Your task to perform on an android device: Open internet settings Image 0: 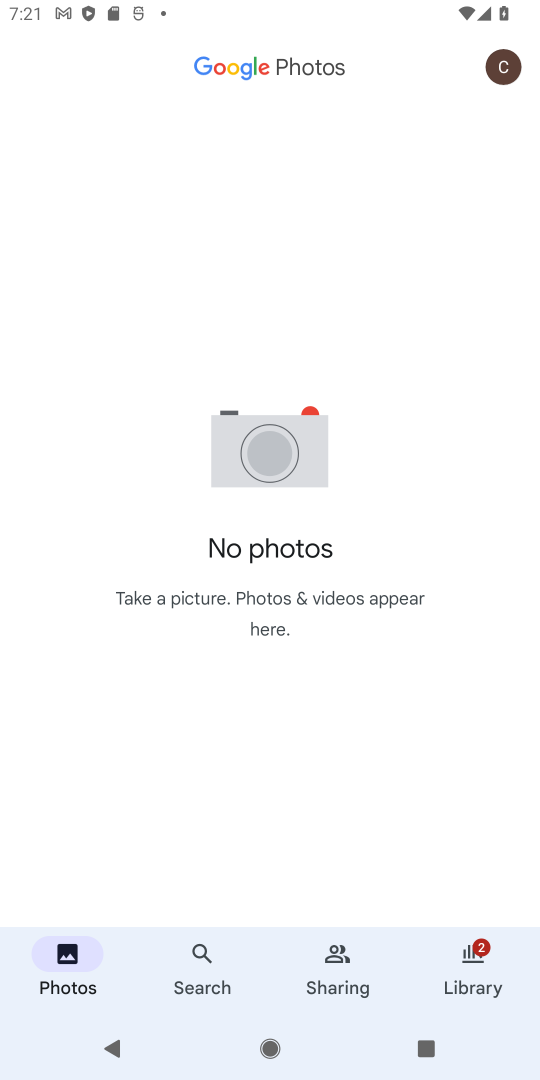
Step 0: press home button
Your task to perform on an android device: Open internet settings Image 1: 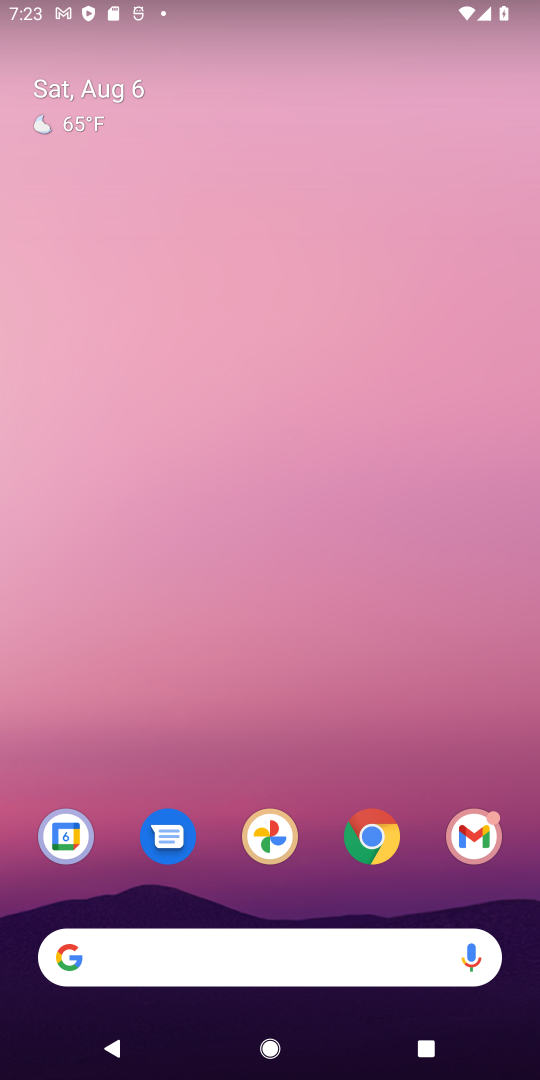
Step 1: drag from (427, 841) to (268, 85)
Your task to perform on an android device: Open internet settings Image 2: 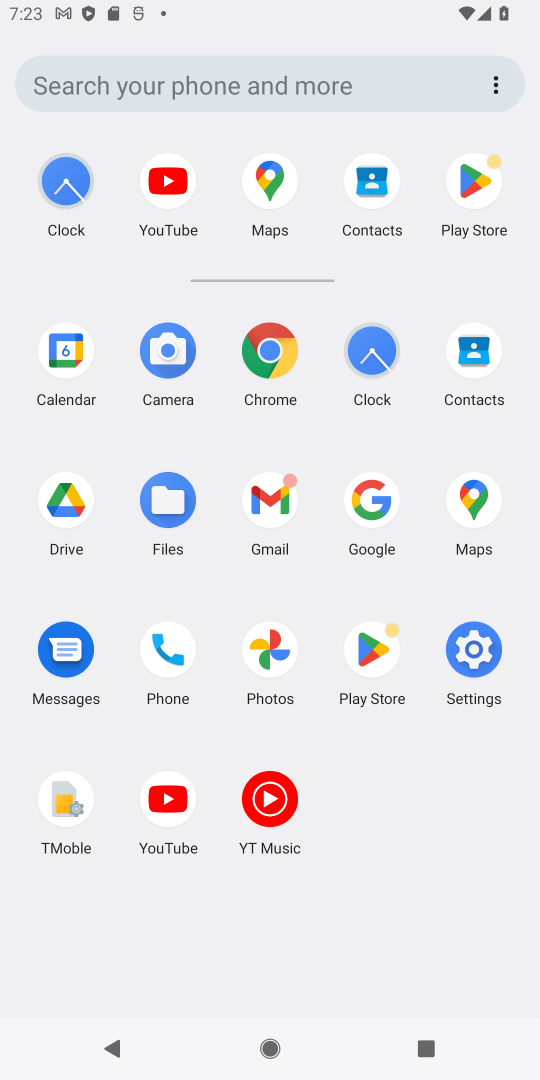
Step 2: click (474, 685)
Your task to perform on an android device: Open internet settings Image 3: 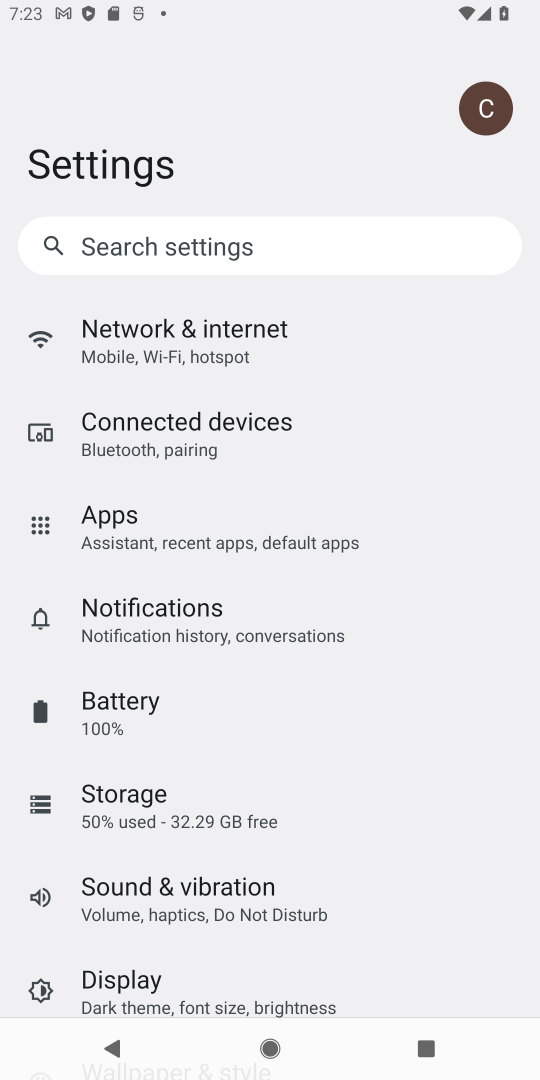
Step 3: click (212, 348)
Your task to perform on an android device: Open internet settings Image 4: 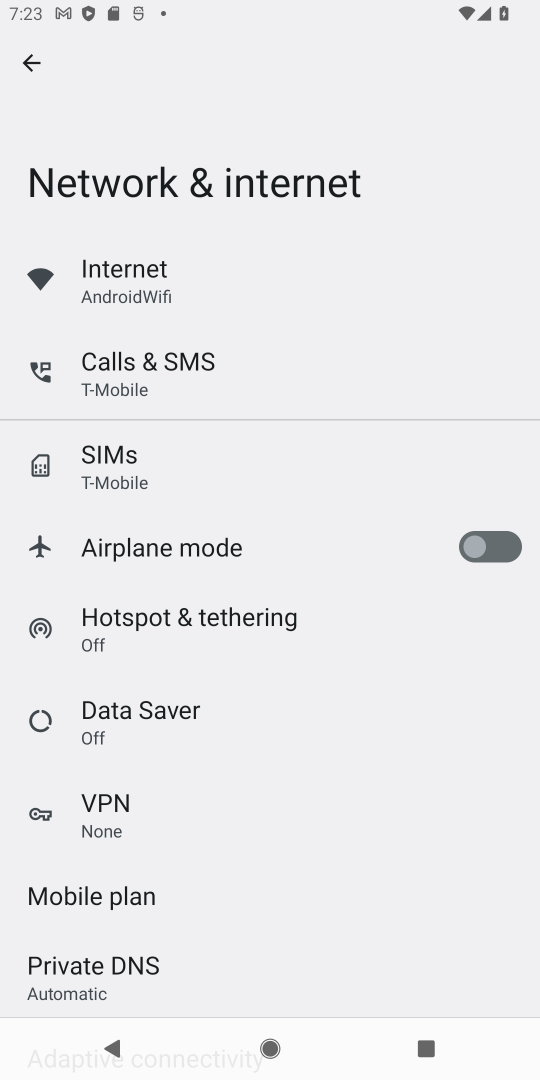
Step 4: task complete